Your task to perform on an android device: open wifi settings Image 0: 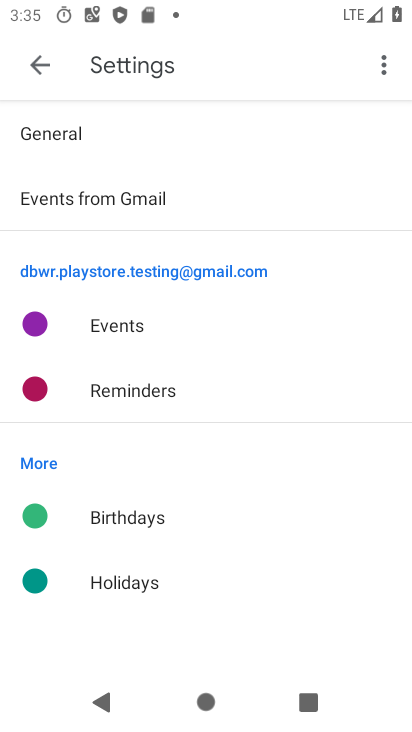
Step 0: press home button
Your task to perform on an android device: open wifi settings Image 1: 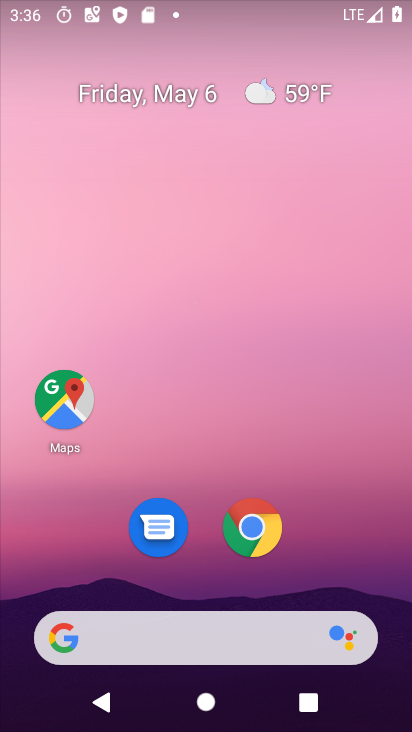
Step 1: click (318, 142)
Your task to perform on an android device: open wifi settings Image 2: 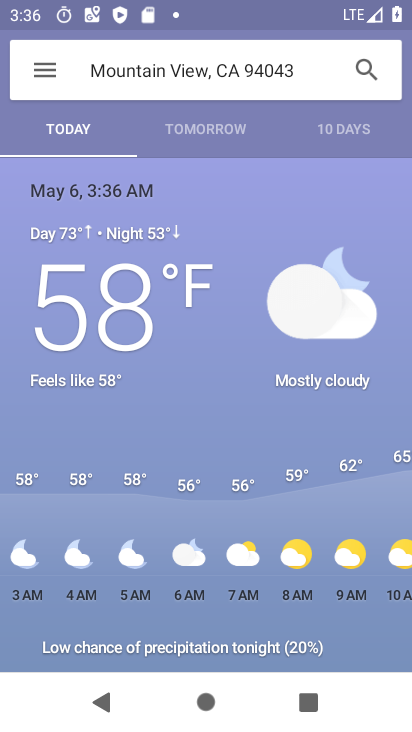
Step 2: press home button
Your task to perform on an android device: open wifi settings Image 3: 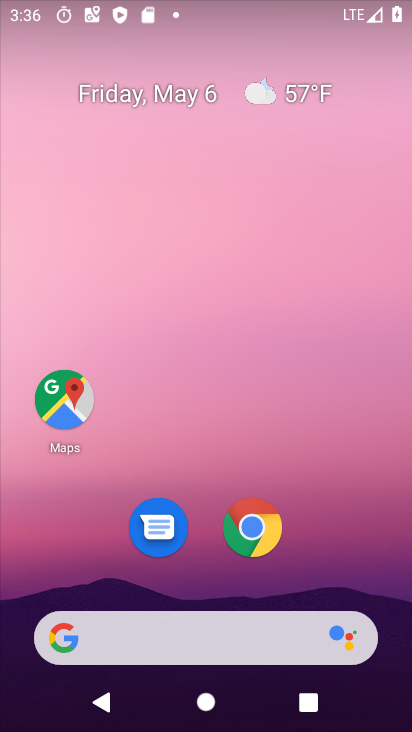
Step 3: click (262, 561)
Your task to perform on an android device: open wifi settings Image 4: 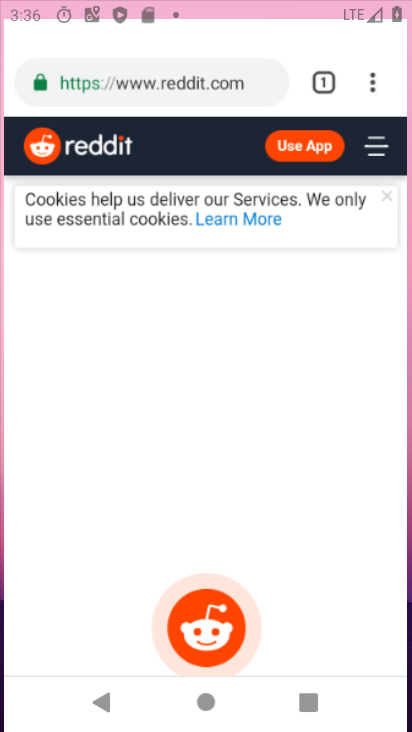
Step 4: click (245, 539)
Your task to perform on an android device: open wifi settings Image 5: 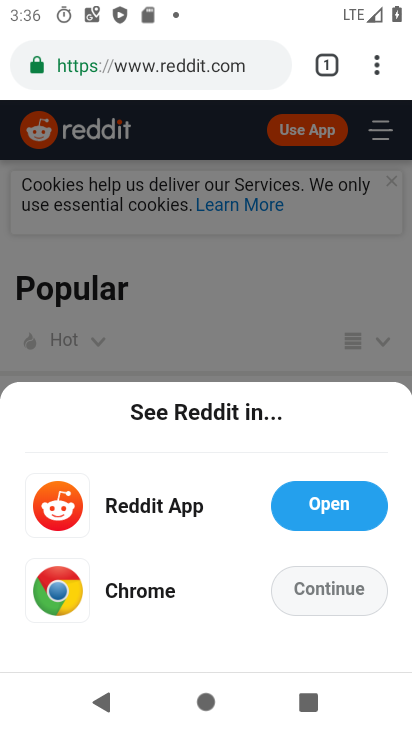
Step 5: click (256, 550)
Your task to perform on an android device: open wifi settings Image 6: 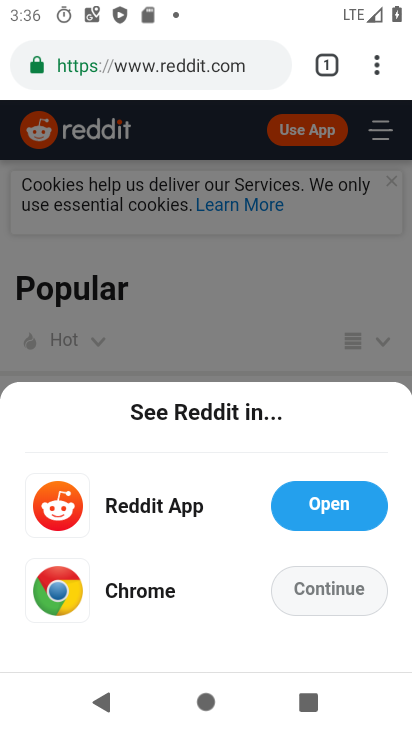
Step 6: click (317, 590)
Your task to perform on an android device: open wifi settings Image 7: 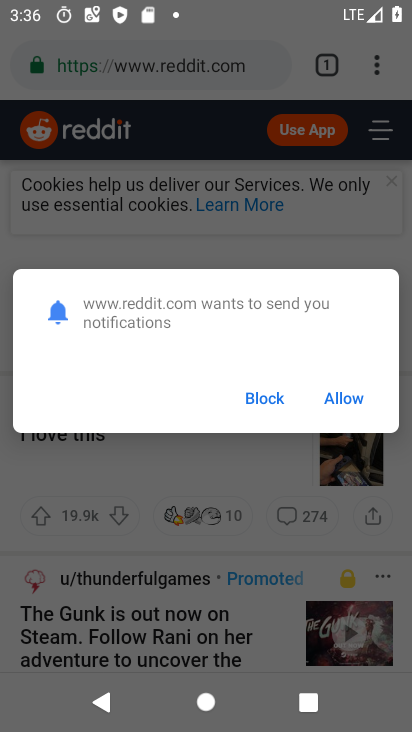
Step 7: click (269, 399)
Your task to perform on an android device: open wifi settings Image 8: 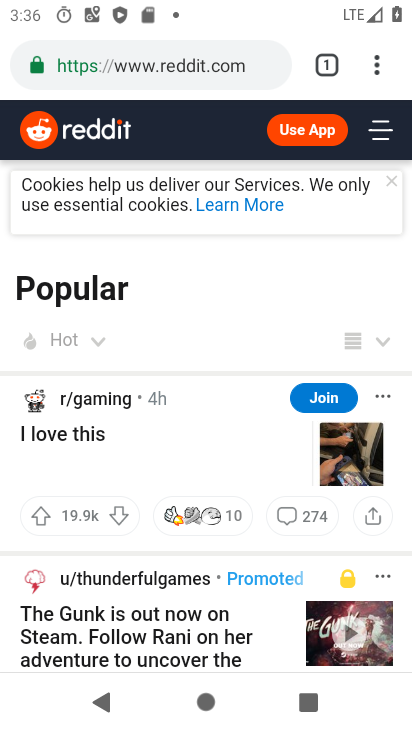
Step 8: press home button
Your task to perform on an android device: open wifi settings Image 9: 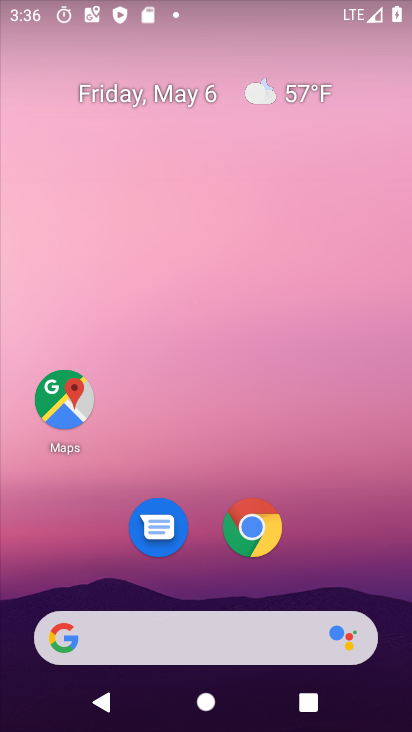
Step 9: drag from (319, 571) to (305, 165)
Your task to perform on an android device: open wifi settings Image 10: 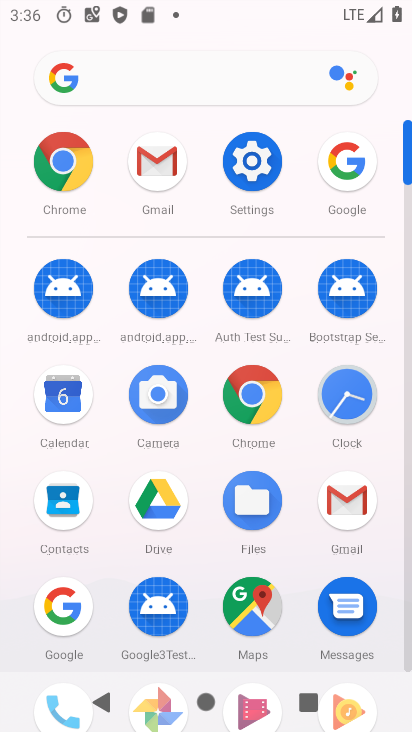
Step 10: click (275, 190)
Your task to perform on an android device: open wifi settings Image 11: 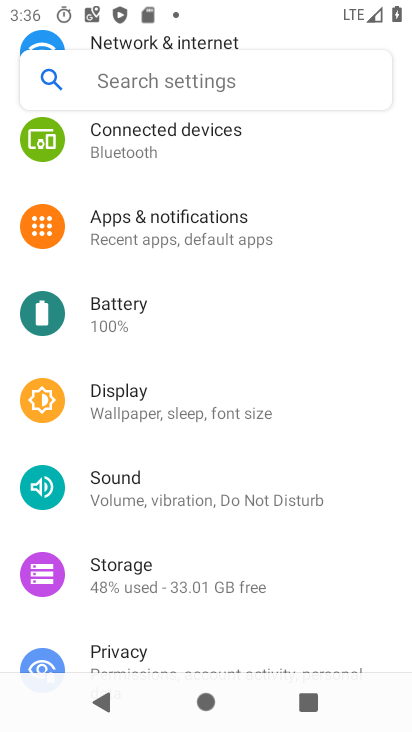
Step 11: click (147, 489)
Your task to perform on an android device: open wifi settings Image 12: 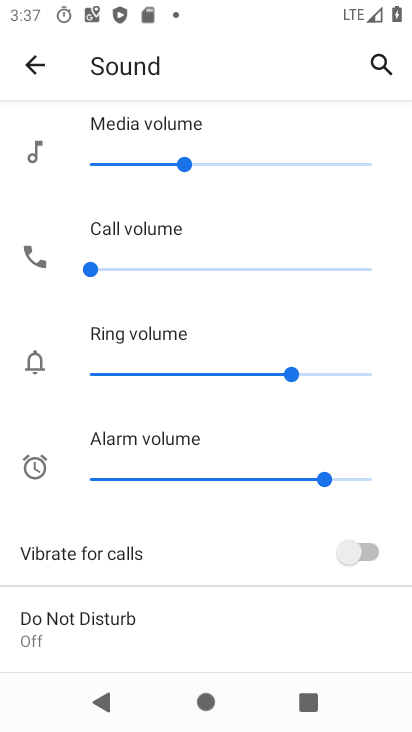
Step 12: drag from (231, 214) to (196, 435)
Your task to perform on an android device: open wifi settings Image 13: 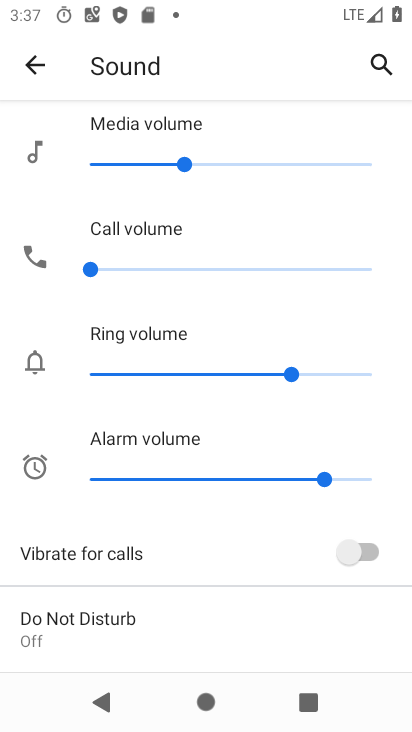
Step 13: drag from (267, 213) to (253, 449)
Your task to perform on an android device: open wifi settings Image 14: 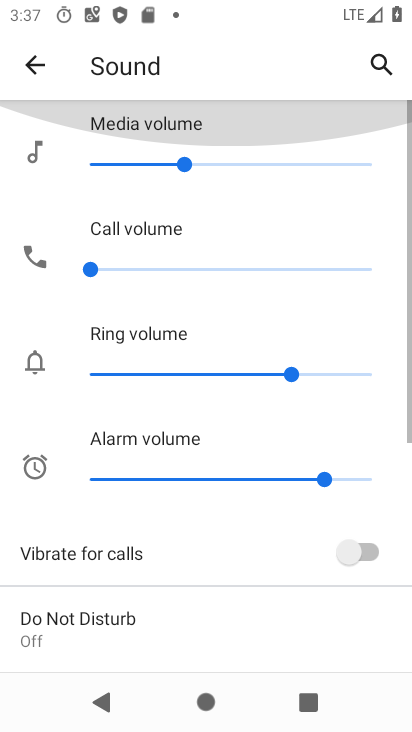
Step 14: press back button
Your task to perform on an android device: open wifi settings Image 15: 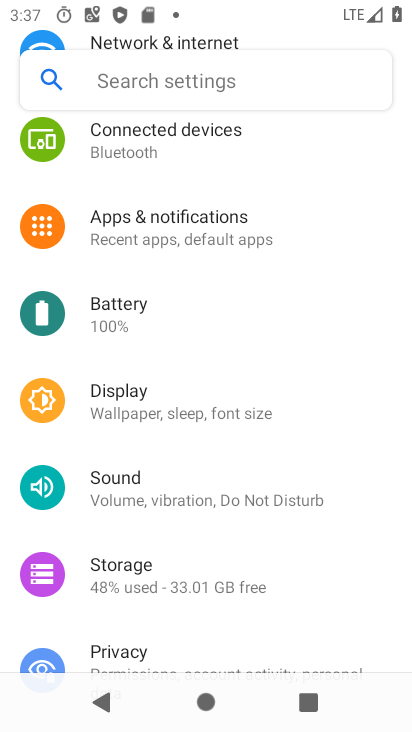
Step 15: press back button
Your task to perform on an android device: open wifi settings Image 16: 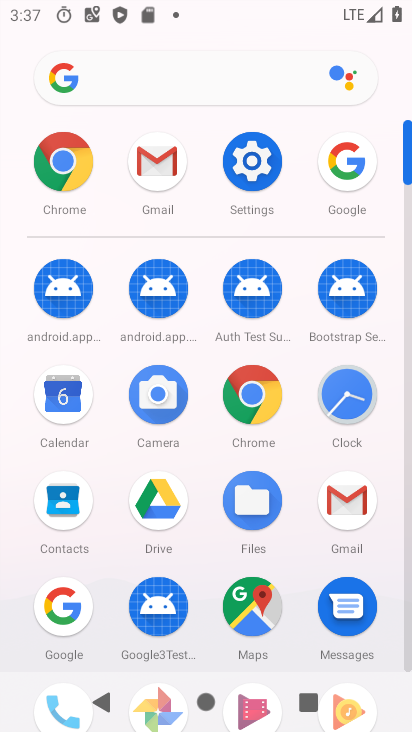
Step 16: click (260, 176)
Your task to perform on an android device: open wifi settings Image 17: 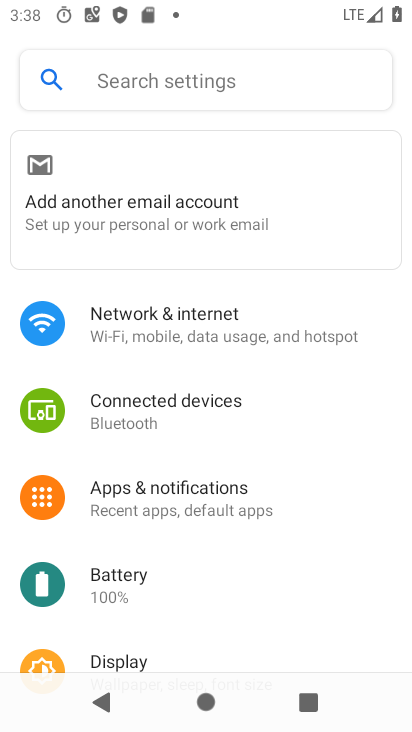
Step 17: click (174, 323)
Your task to perform on an android device: open wifi settings Image 18: 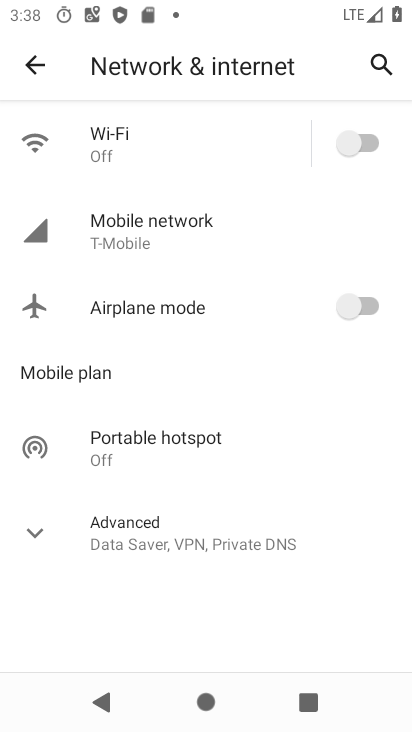
Step 18: click (119, 149)
Your task to perform on an android device: open wifi settings Image 19: 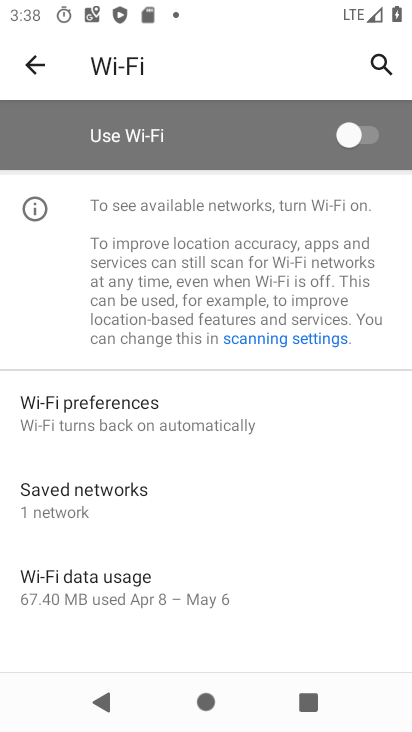
Step 19: task complete